Your task to perform on an android device: Add alienware aurora to the cart on amazon Image 0: 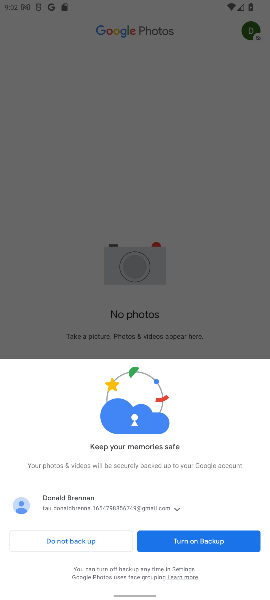
Step 0: press home button
Your task to perform on an android device: Add alienware aurora to the cart on amazon Image 1: 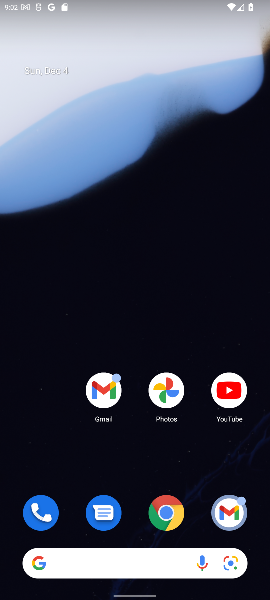
Step 1: click (158, 508)
Your task to perform on an android device: Add alienware aurora to the cart on amazon Image 2: 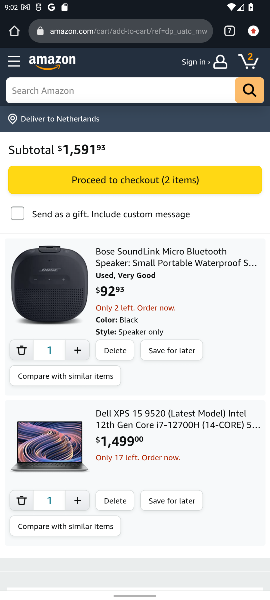
Step 2: click (60, 87)
Your task to perform on an android device: Add alienware aurora to the cart on amazon Image 3: 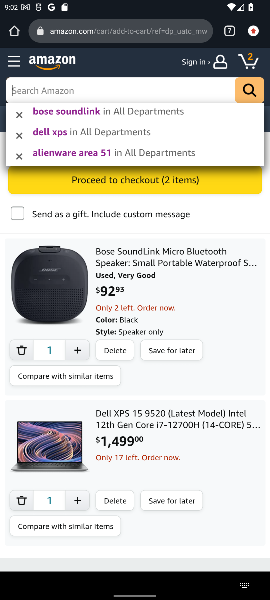
Step 3: type "alienware aurora"
Your task to perform on an android device: Add alienware aurora to the cart on amazon Image 4: 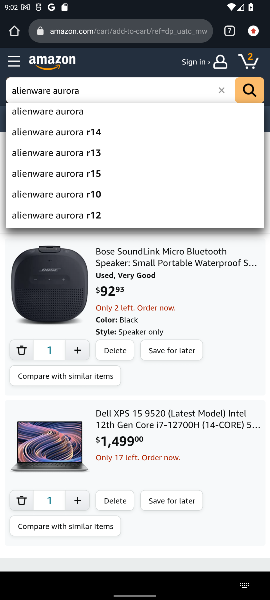
Step 4: click (49, 112)
Your task to perform on an android device: Add alienware aurora to the cart on amazon Image 5: 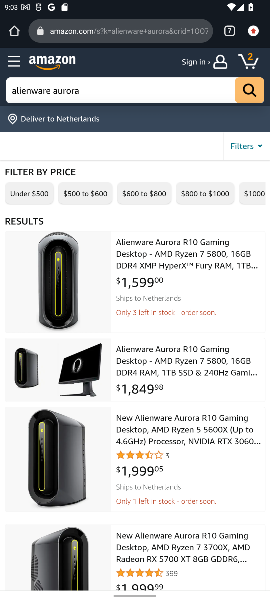
Step 5: click (189, 259)
Your task to perform on an android device: Add alienware aurora to the cart on amazon Image 6: 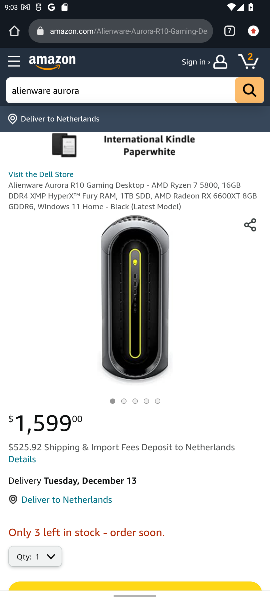
Step 6: drag from (199, 512) to (222, 240)
Your task to perform on an android device: Add alienware aurora to the cart on amazon Image 7: 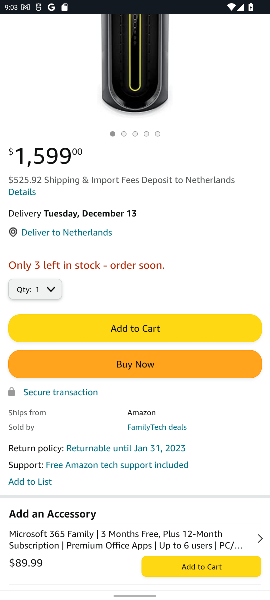
Step 7: click (131, 326)
Your task to perform on an android device: Add alienware aurora to the cart on amazon Image 8: 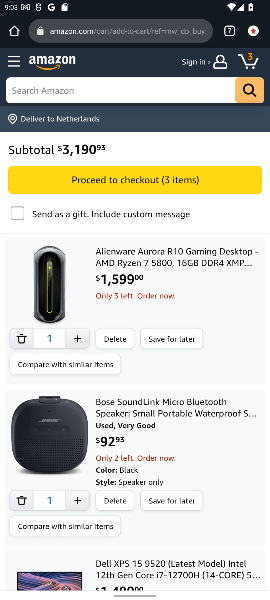
Step 8: task complete